Your task to perform on an android device: Go to Yahoo.com Image 0: 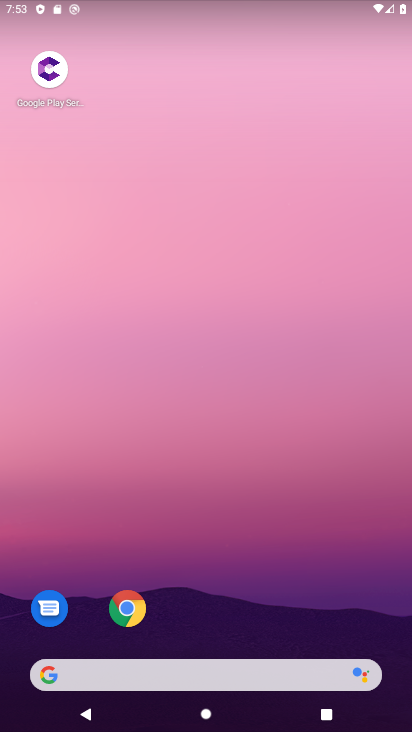
Step 0: click (121, 612)
Your task to perform on an android device: Go to Yahoo.com Image 1: 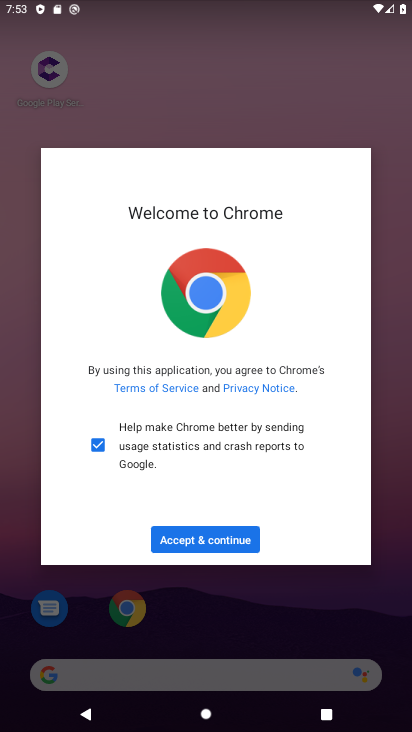
Step 1: click (192, 552)
Your task to perform on an android device: Go to Yahoo.com Image 2: 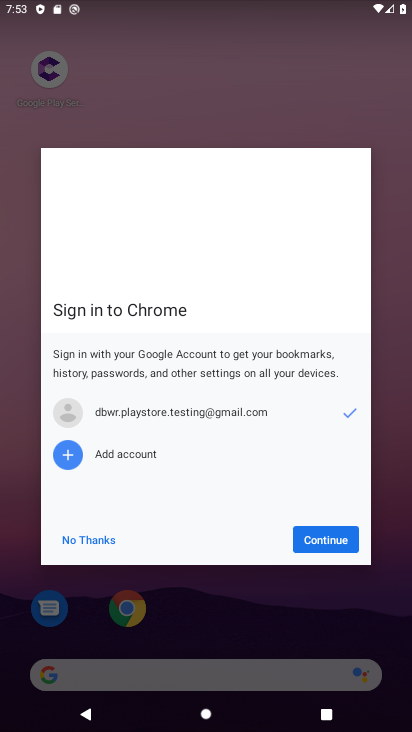
Step 2: click (347, 521)
Your task to perform on an android device: Go to Yahoo.com Image 3: 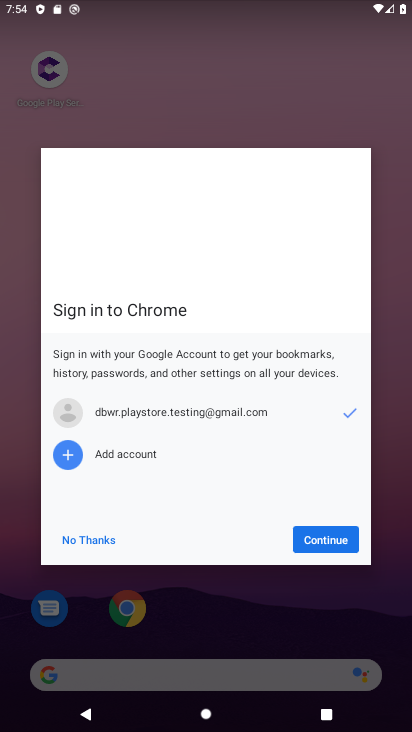
Step 3: click (342, 552)
Your task to perform on an android device: Go to Yahoo.com Image 4: 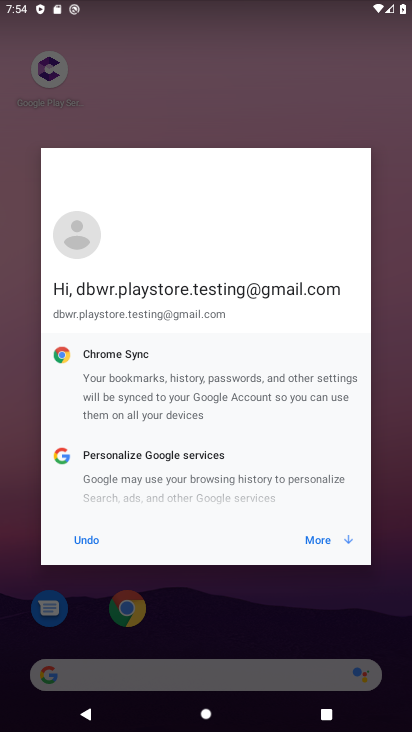
Step 4: click (341, 536)
Your task to perform on an android device: Go to Yahoo.com Image 5: 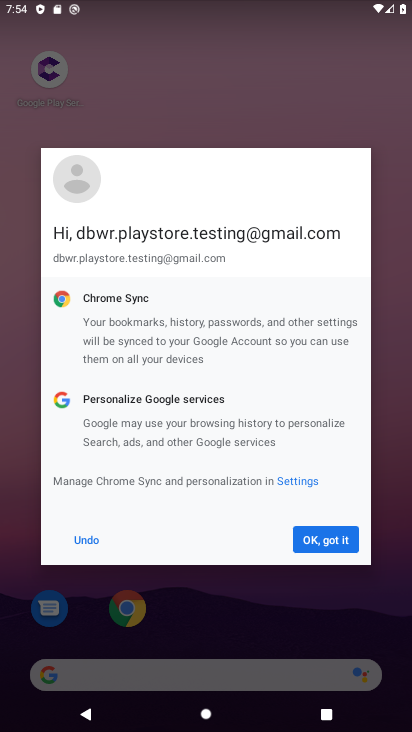
Step 5: click (341, 536)
Your task to perform on an android device: Go to Yahoo.com Image 6: 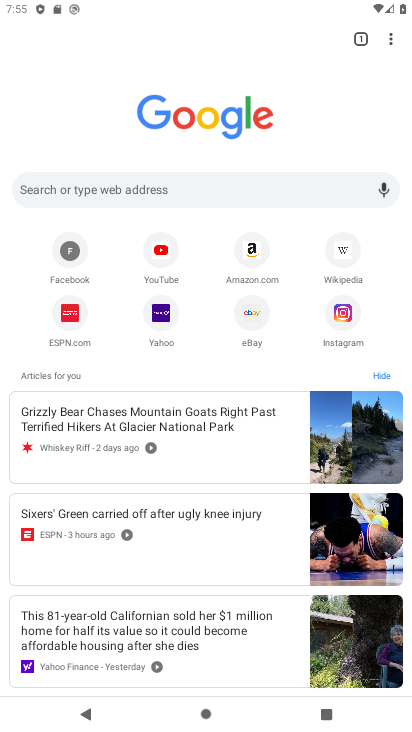
Step 6: click (53, 182)
Your task to perform on an android device: Go to Yahoo.com Image 7: 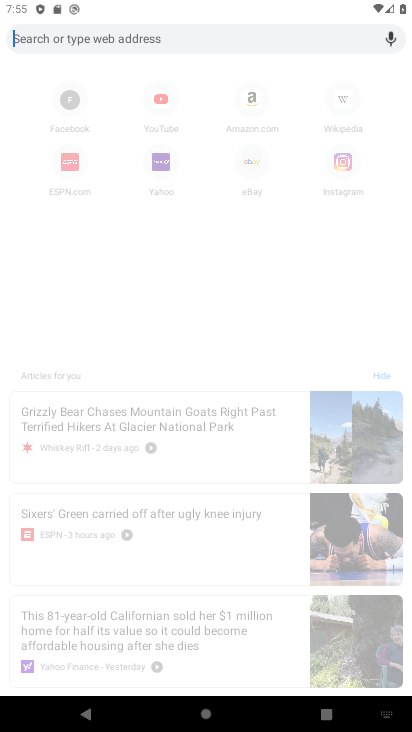
Step 7: type "yahoo.com "
Your task to perform on an android device: Go to Yahoo.com Image 8: 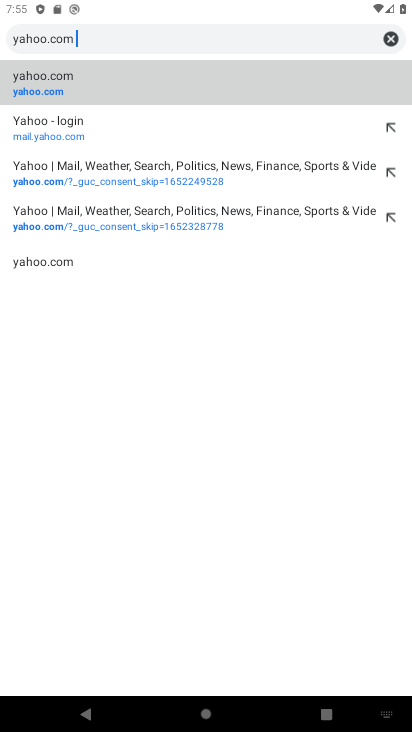
Step 8: click (142, 76)
Your task to perform on an android device: Go to Yahoo.com Image 9: 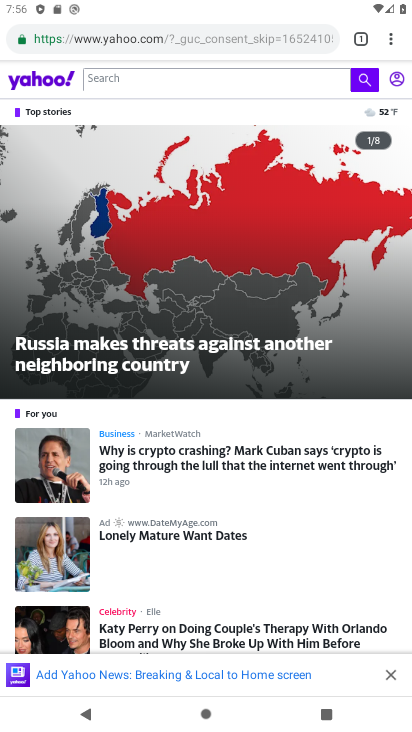
Step 9: task complete